Your task to perform on an android device: open app "DoorDash - Food Delivery" (install if not already installed) Image 0: 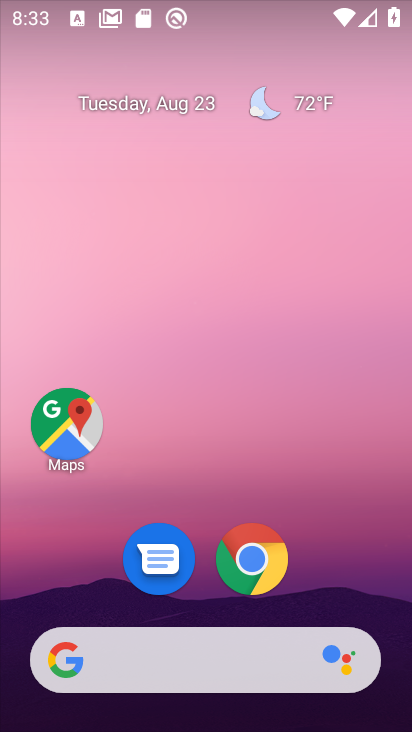
Step 0: drag from (208, 507) to (162, 194)
Your task to perform on an android device: open app "DoorDash - Food Delivery" (install if not already installed) Image 1: 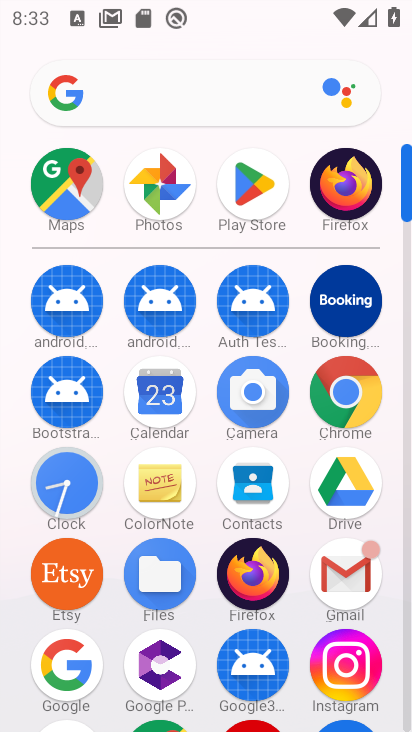
Step 1: click (251, 212)
Your task to perform on an android device: open app "DoorDash - Food Delivery" (install if not already installed) Image 2: 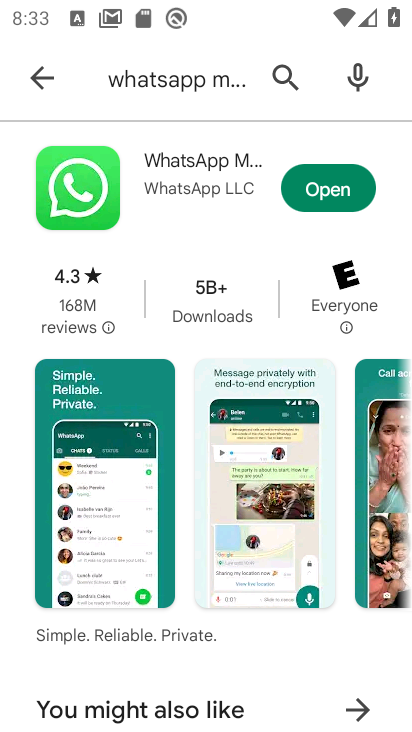
Step 2: click (285, 87)
Your task to perform on an android device: open app "DoorDash - Food Delivery" (install if not already installed) Image 3: 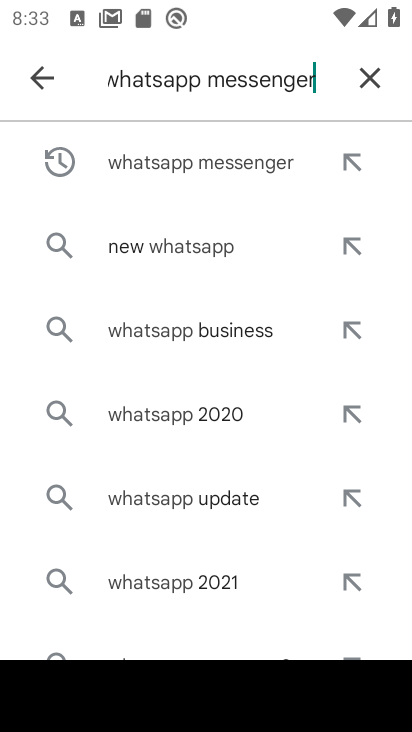
Step 3: drag from (360, 68) to (406, 68)
Your task to perform on an android device: open app "DoorDash - Food Delivery" (install if not already installed) Image 4: 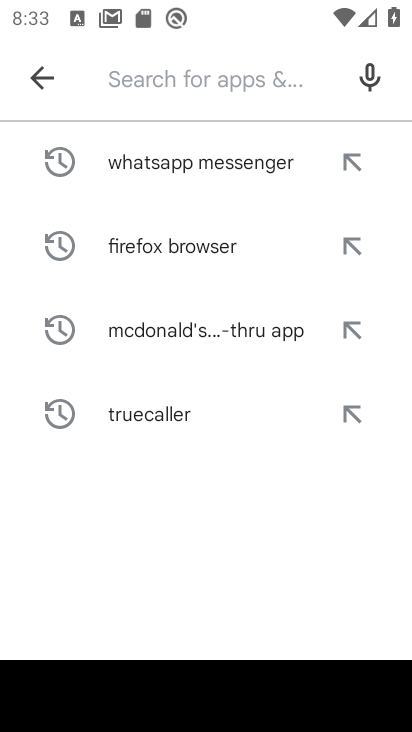
Step 4: type "DoorDash - Food Delivery"
Your task to perform on an android device: open app "DoorDash - Food Delivery" (install if not already installed) Image 5: 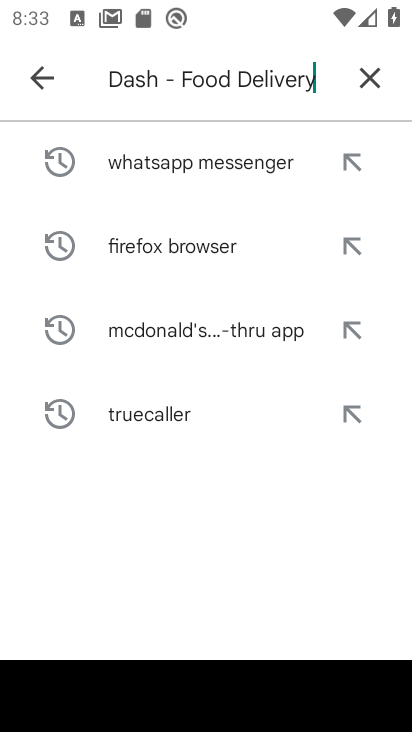
Step 5: type ""
Your task to perform on an android device: open app "DoorDash - Food Delivery" (install if not already installed) Image 6: 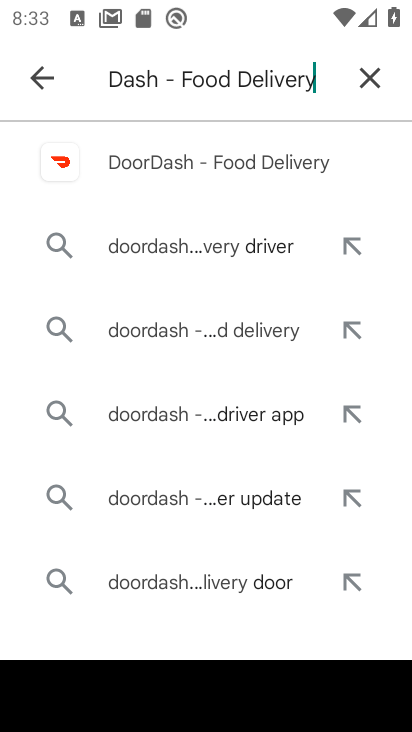
Step 6: click (196, 153)
Your task to perform on an android device: open app "DoorDash - Food Delivery" (install if not already installed) Image 7: 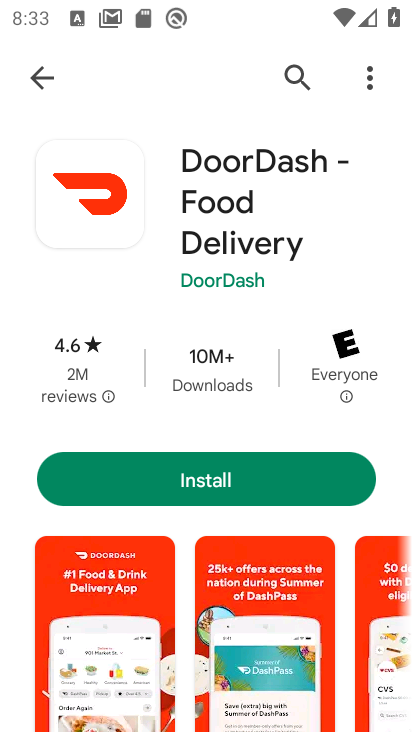
Step 7: click (233, 483)
Your task to perform on an android device: open app "DoorDash - Food Delivery" (install if not already installed) Image 8: 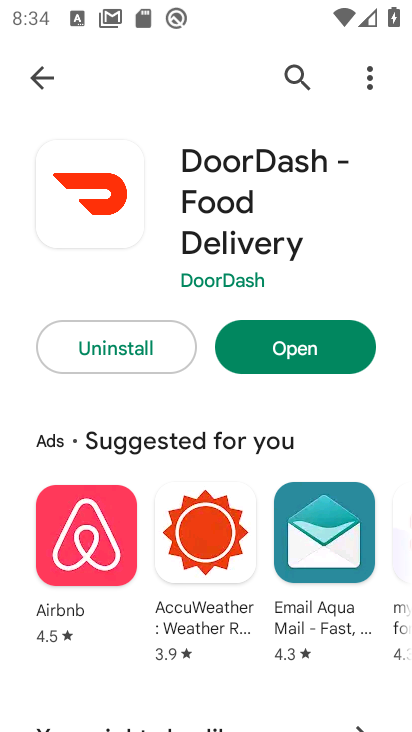
Step 8: click (303, 342)
Your task to perform on an android device: open app "DoorDash - Food Delivery" (install if not already installed) Image 9: 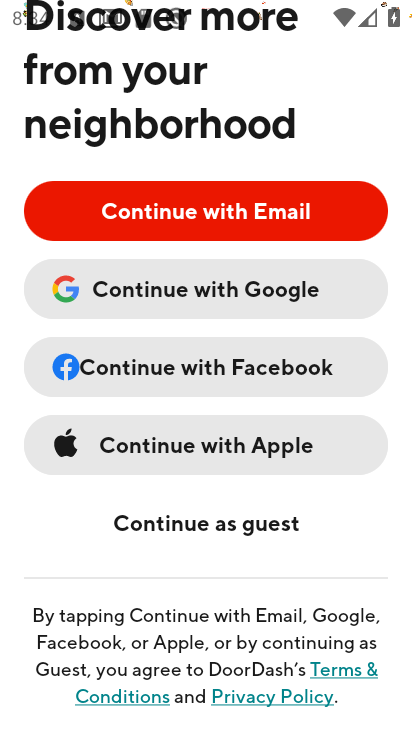
Step 9: task complete